Your task to perform on an android device: Go to location settings Image 0: 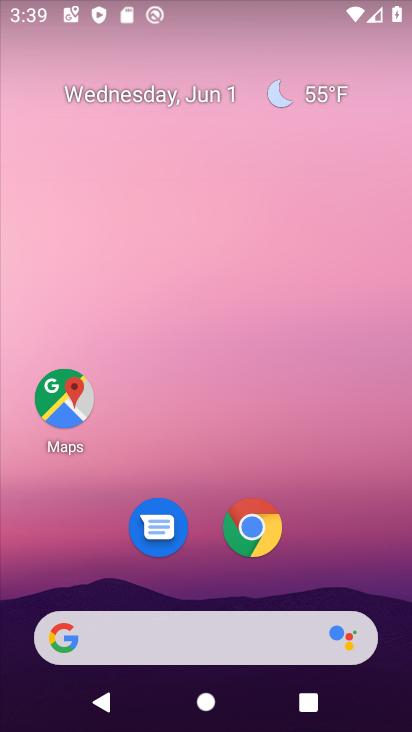
Step 0: drag from (362, 514) to (325, 111)
Your task to perform on an android device: Go to location settings Image 1: 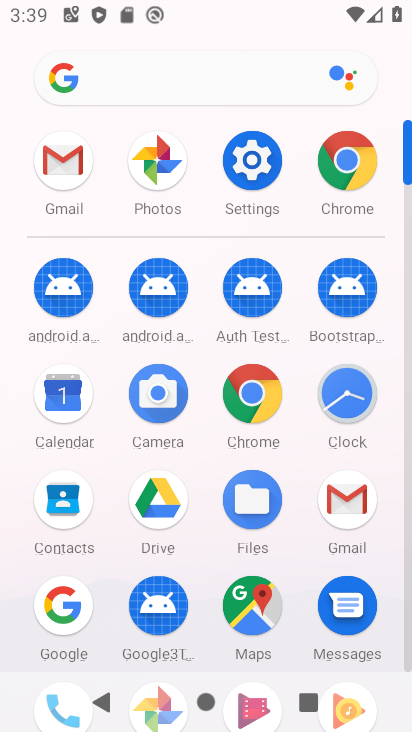
Step 1: click (240, 137)
Your task to perform on an android device: Go to location settings Image 2: 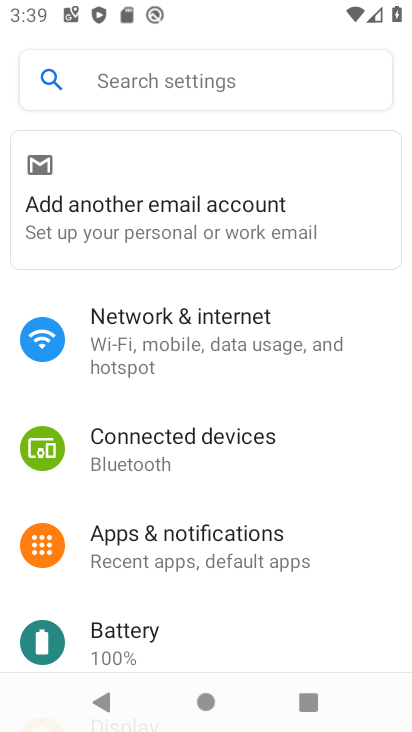
Step 2: drag from (121, 480) to (126, 272)
Your task to perform on an android device: Go to location settings Image 3: 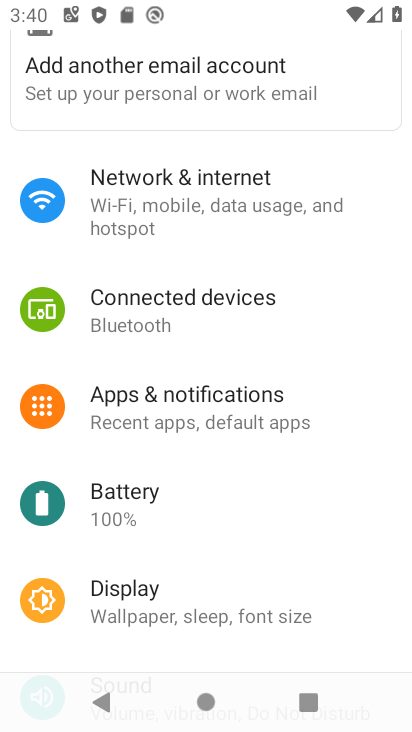
Step 3: drag from (194, 541) to (162, 253)
Your task to perform on an android device: Go to location settings Image 4: 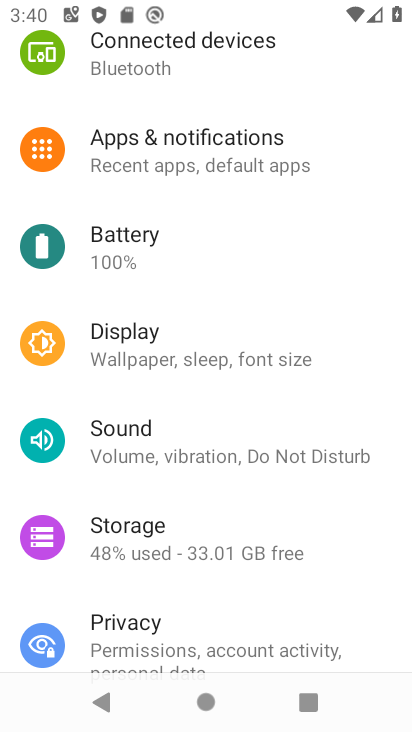
Step 4: drag from (178, 533) to (192, 382)
Your task to perform on an android device: Go to location settings Image 5: 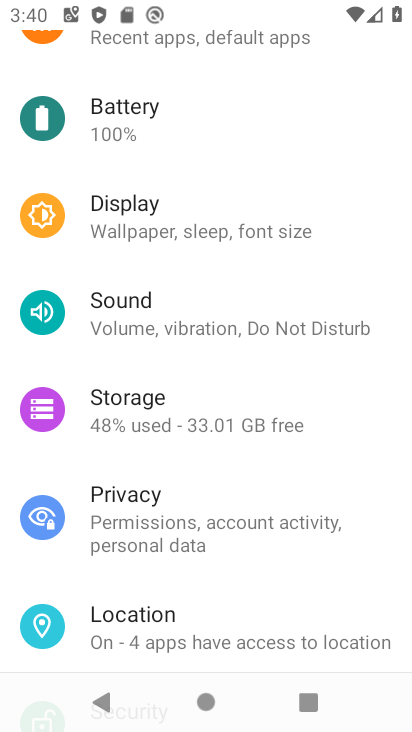
Step 5: click (178, 616)
Your task to perform on an android device: Go to location settings Image 6: 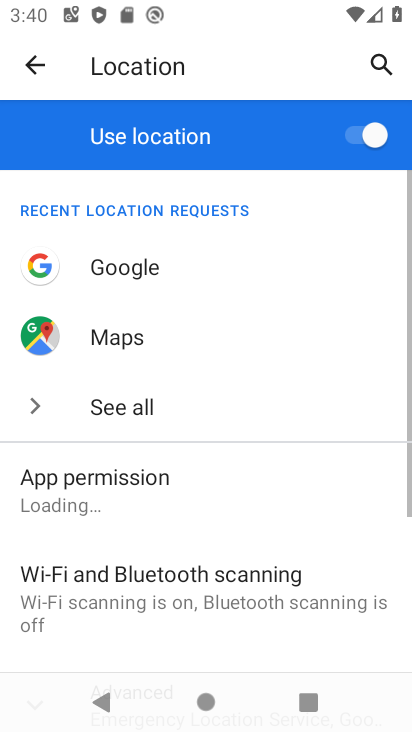
Step 6: task complete